Your task to perform on an android device: turn off translation in the chrome app Image 0: 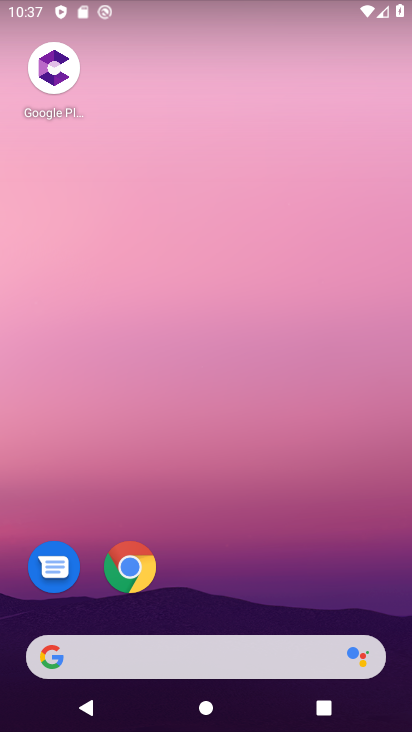
Step 0: click (140, 575)
Your task to perform on an android device: turn off translation in the chrome app Image 1: 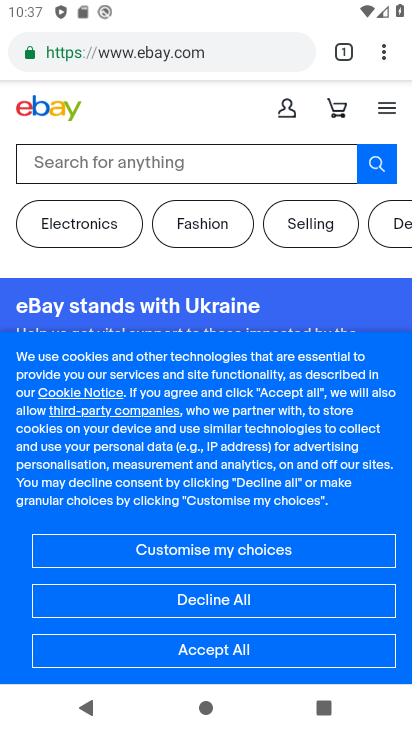
Step 1: click (382, 56)
Your task to perform on an android device: turn off translation in the chrome app Image 2: 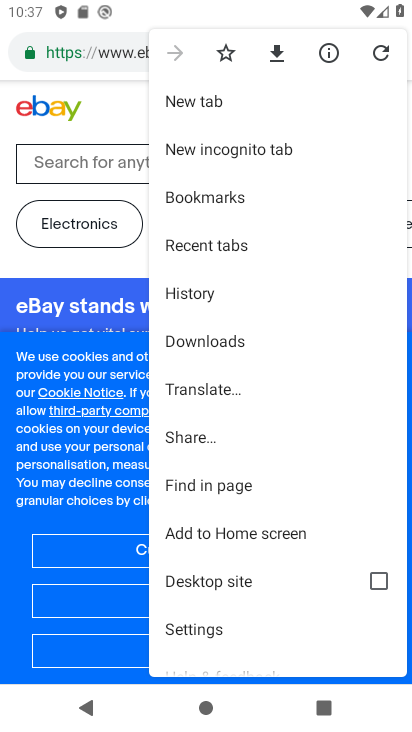
Step 2: click (225, 623)
Your task to perform on an android device: turn off translation in the chrome app Image 3: 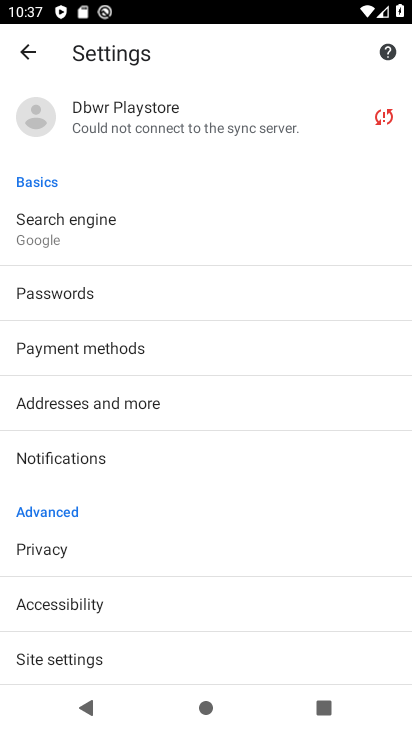
Step 3: drag from (142, 644) to (150, 137)
Your task to perform on an android device: turn off translation in the chrome app Image 4: 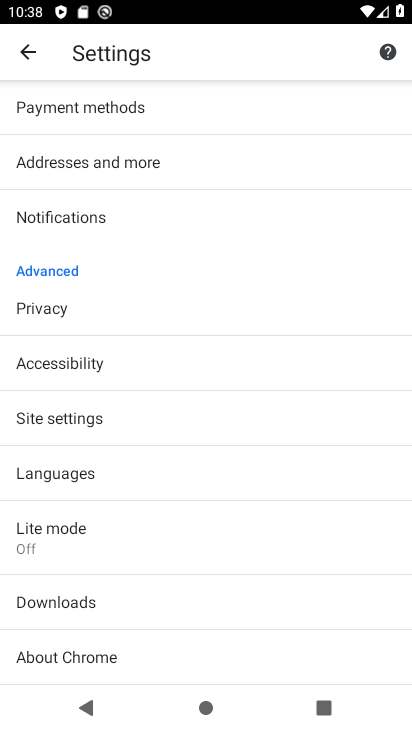
Step 4: click (114, 477)
Your task to perform on an android device: turn off translation in the chrome app Image 5: 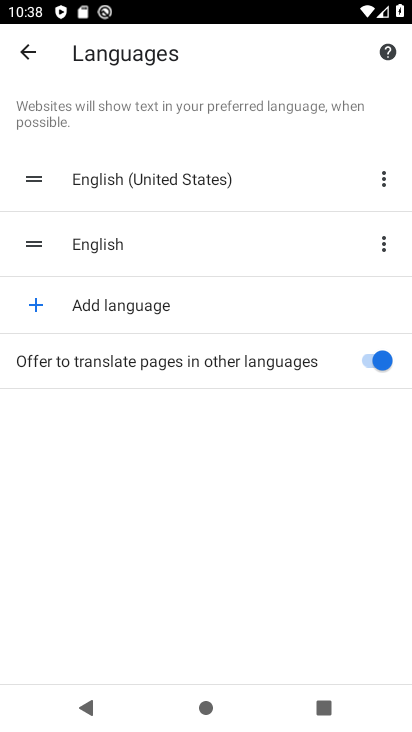
Step 5: click (360, 355)
Your task to perform on an android device: turn off translation in the chrome app Image 6: 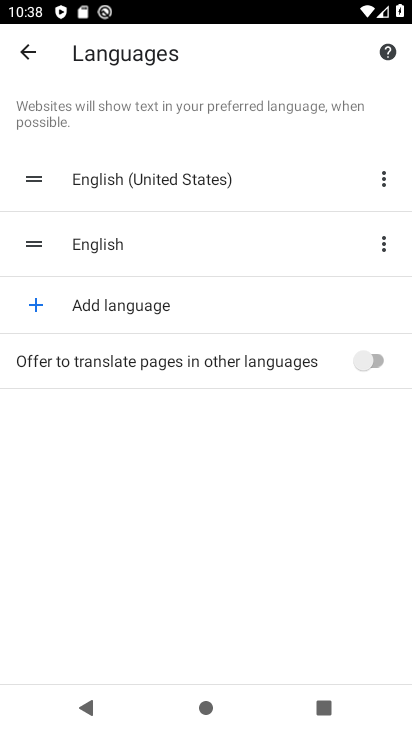
Step 6: task complete